Your task to perform on an android device: Open wifi settings Image 0: 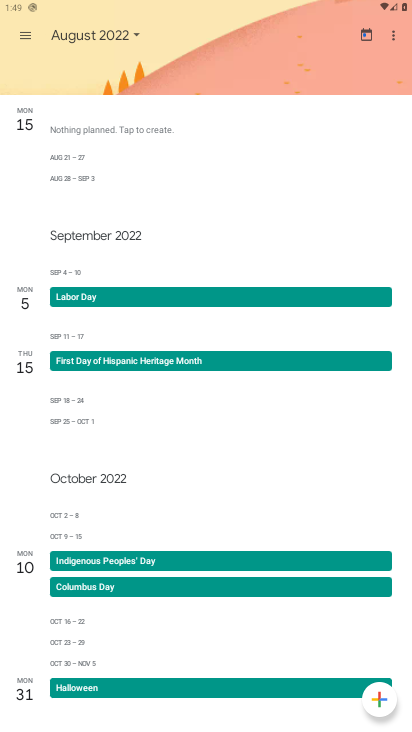
Step 0: press home button
Your task to perform on an android device: Open wifi settings Image 1: 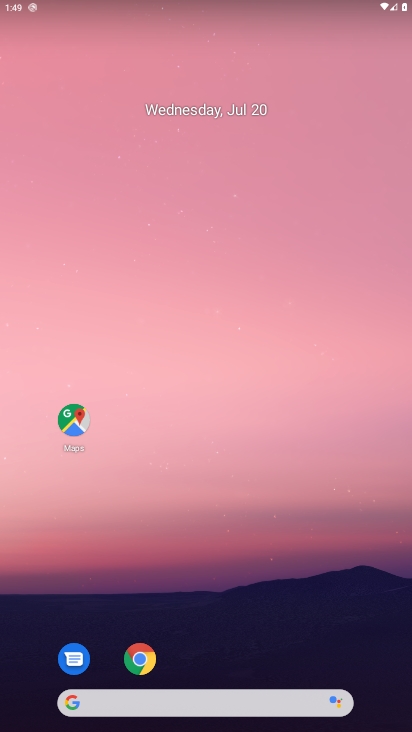
Step 1: drag from (23, 681) to (193, 285)
Your task to perform on an android device: Open wifi settings Image 2: 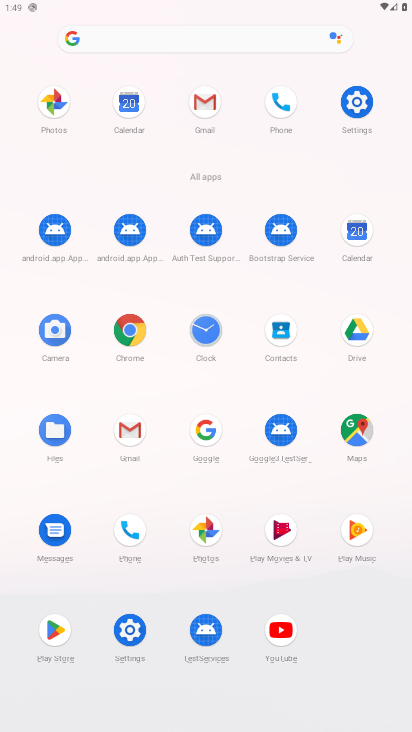
Step 2: click (134, 628)
Your task to perform on an android device: Open wifi settings Image 3: 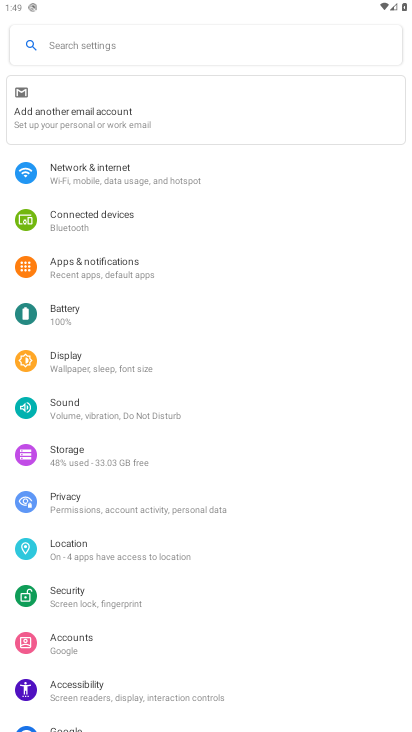
Step 3: click (135, 186)
Your task to perform on an android device: Open wifi settings Image 4: 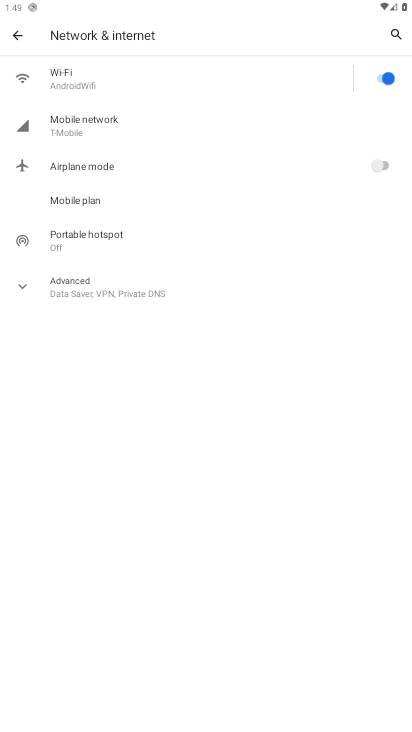
Step 4: task complete